Your task to perform on an android device: turn notification dots on Image 0: 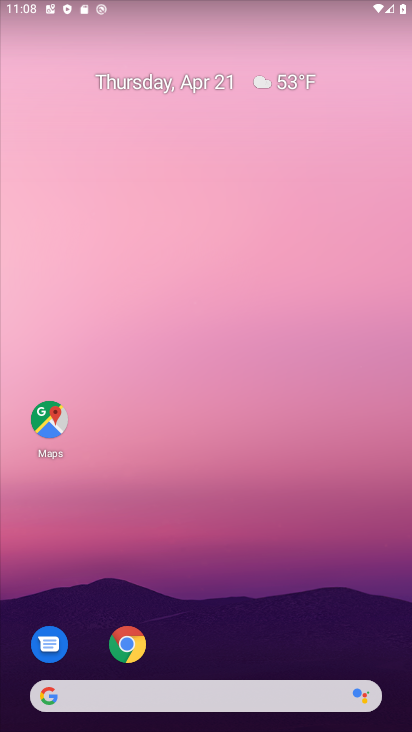
Step 0: drag from (361, 617) to (262, 192)
Your task to perform on an android device: turn notification dots on Image 1: 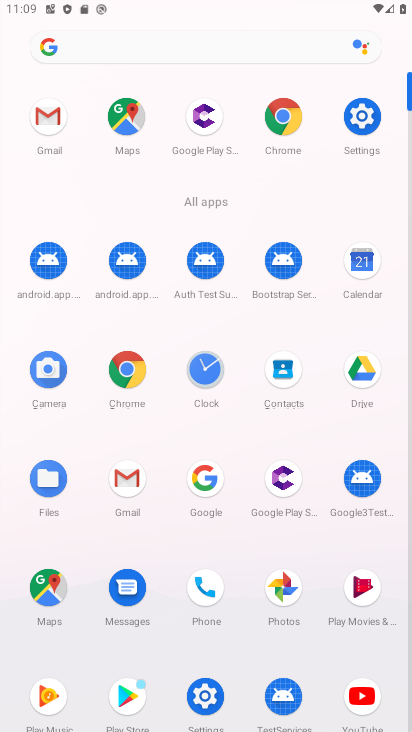
Step 1: click (369, 118)
Your task to perform on an android device: turn notification dots on Image 2: 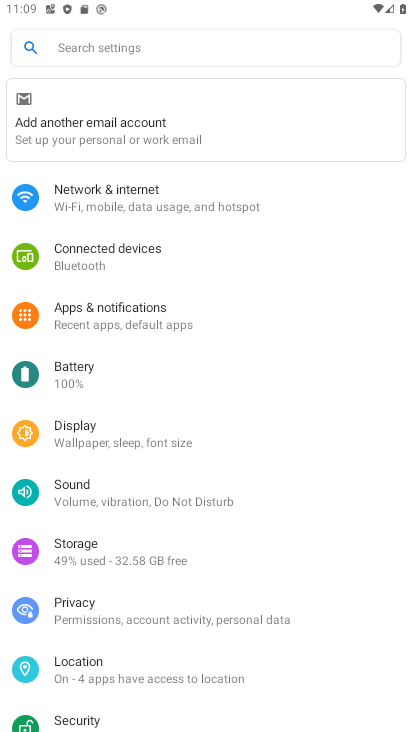
Step 2: click (226, 304)
Your task to perform on an android device: turn notification dots on Image 3: 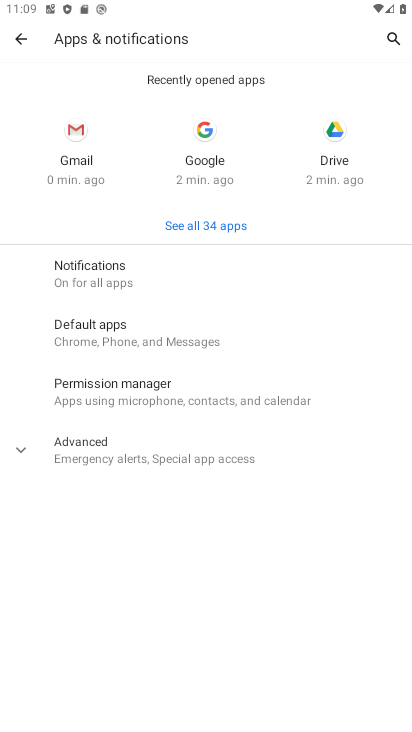
Step 3: click (232, 282)
Your task to perform on an android device: turn notification dots on Image 4: 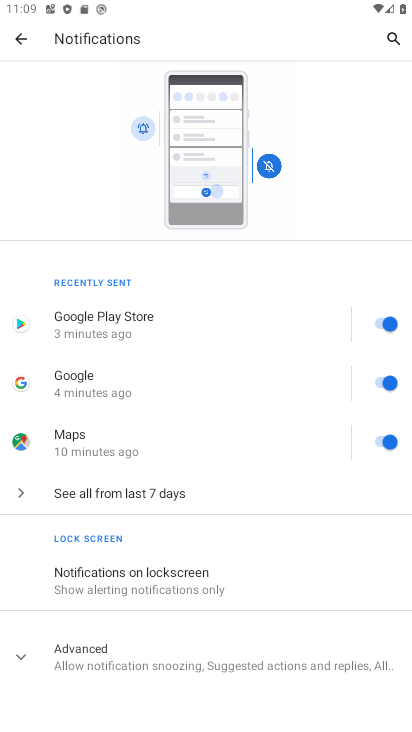
Step 4: drag from (250, 631) to (237, 440)
Your task to perform on an android device: turn notification dots on Image 5: 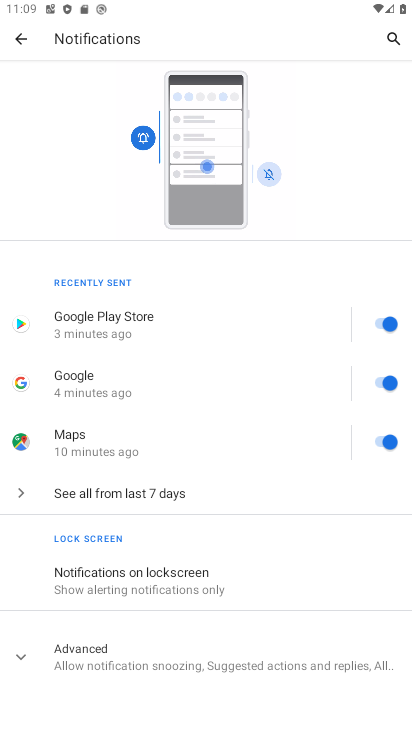
Step 5: click (236, 665)
Your task to perform on an android device: turn notification dots on Image 6: 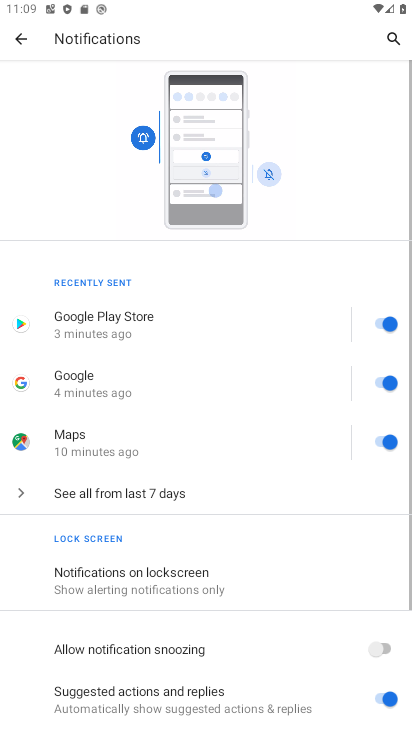
Step 6: task complete